Your task to perform on an android device: read, delete, or share a saved page in the chrome app Image 0: 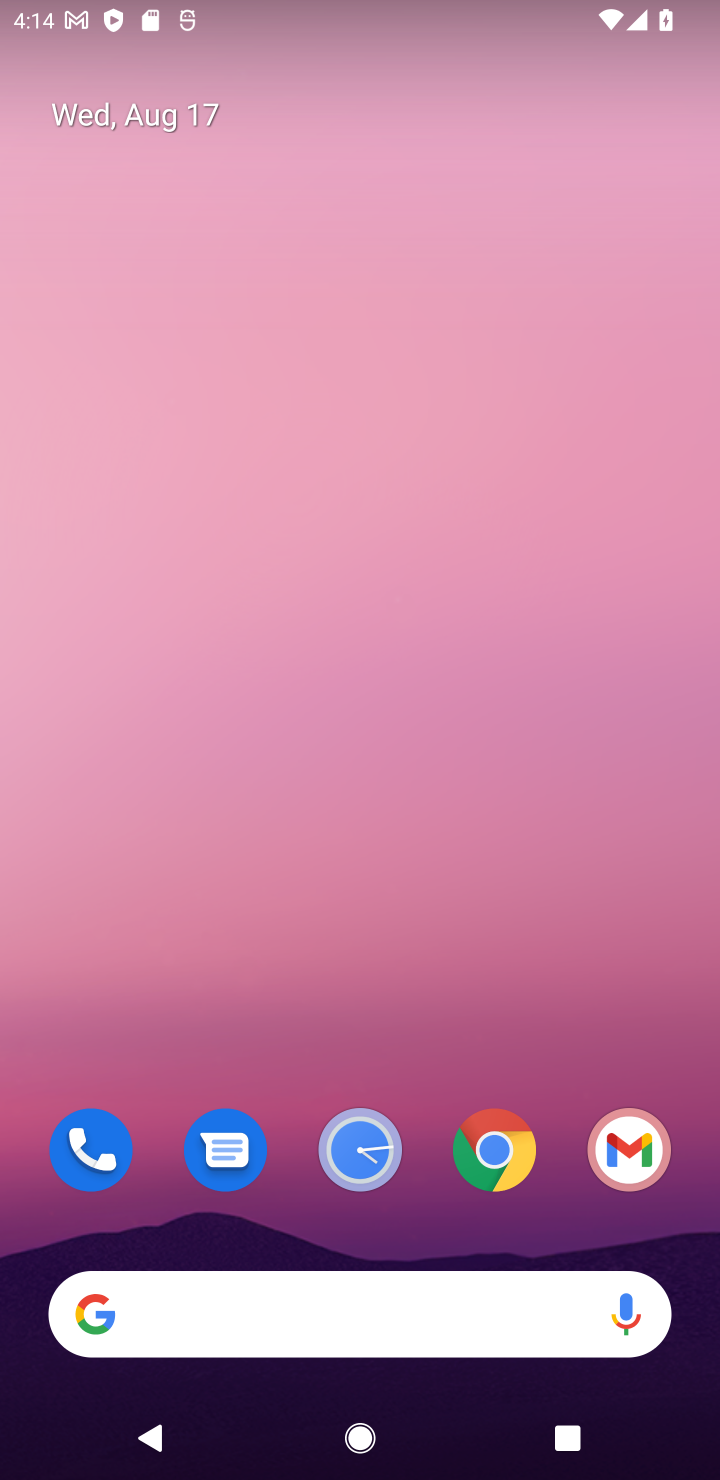
Step 0: drag from (587, 1222) to (315, 6)
Your task to perform on an android device: read, delete, or share a saved page in the chrome app Image 1: 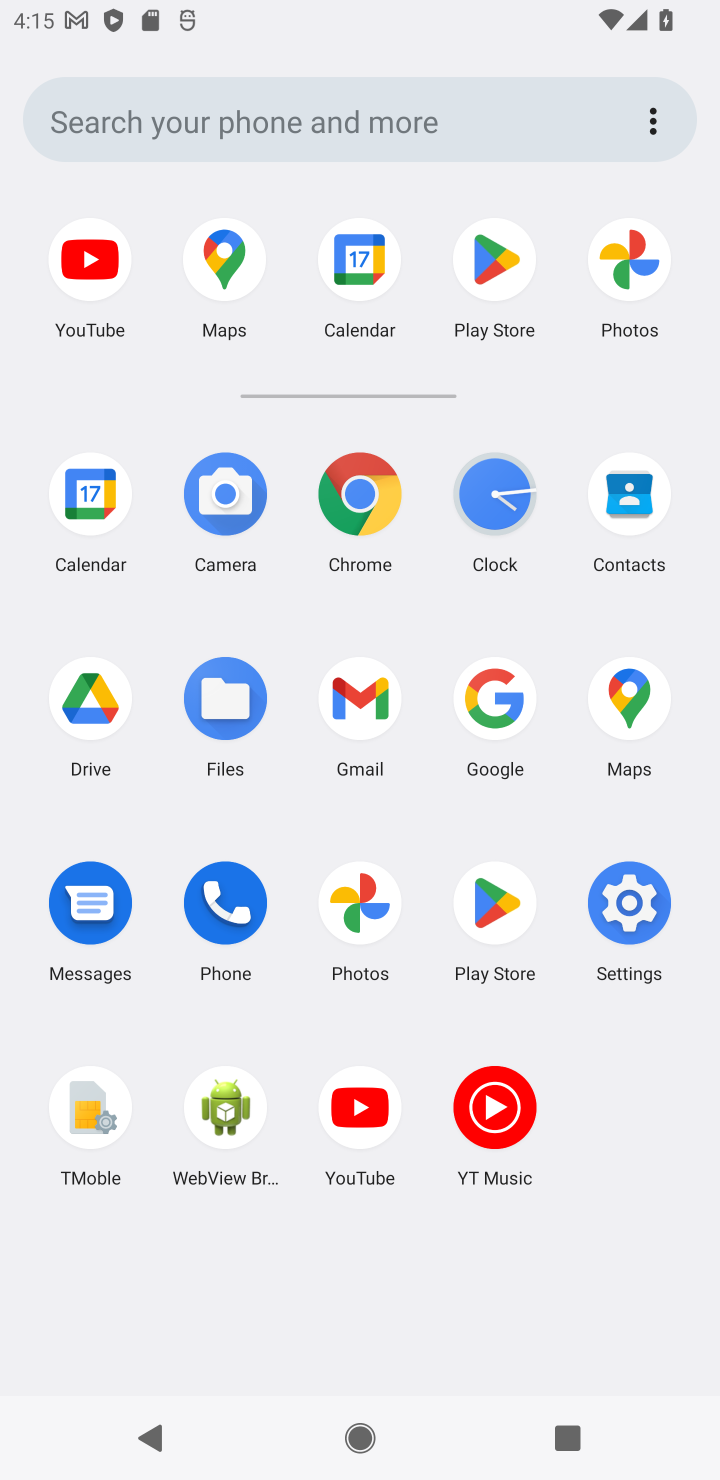
Step 1: click (324, 477)
Your task to perform on an android device: read, delete, or share a saved page in the chrome app Image 2: 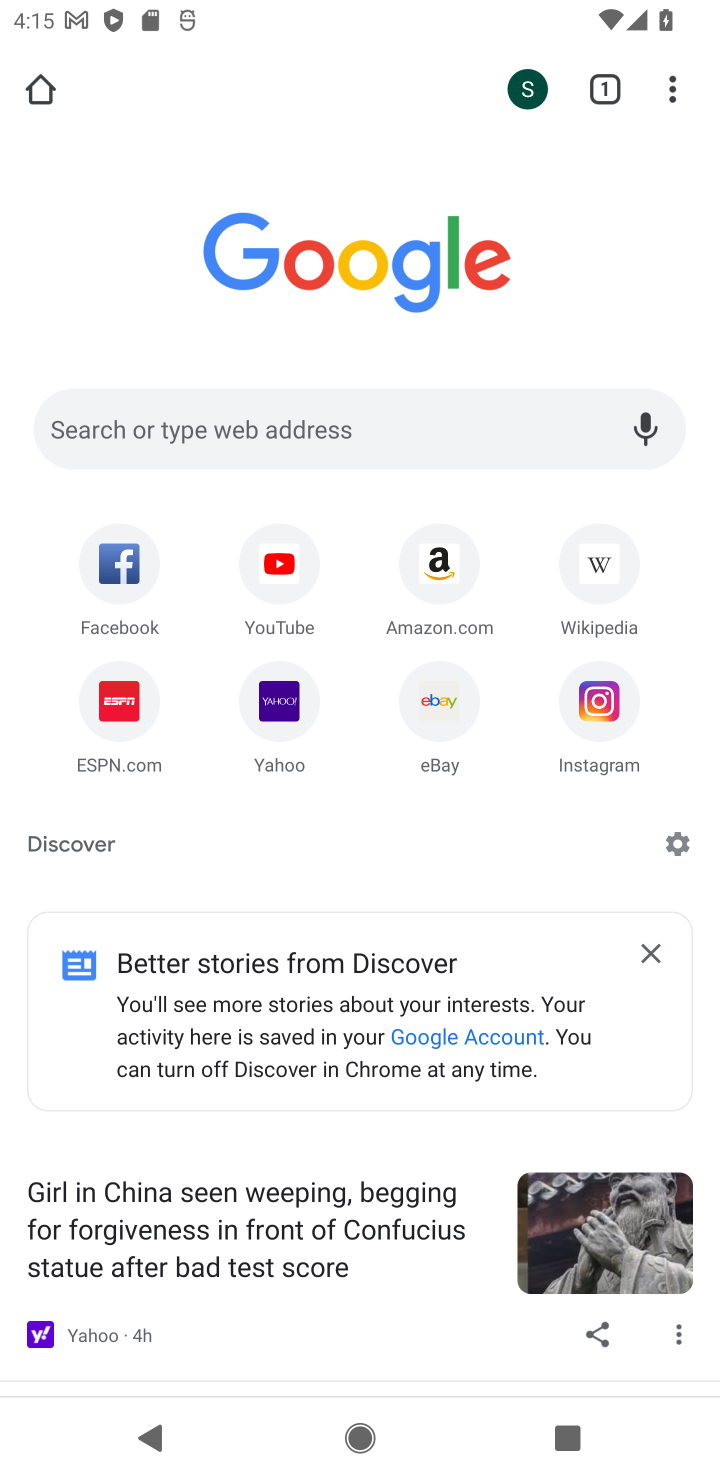
Step 2: task complete